Your task to perform on an android device: open app "Microsoft Authenticator" (install if not already installed) Image 0: 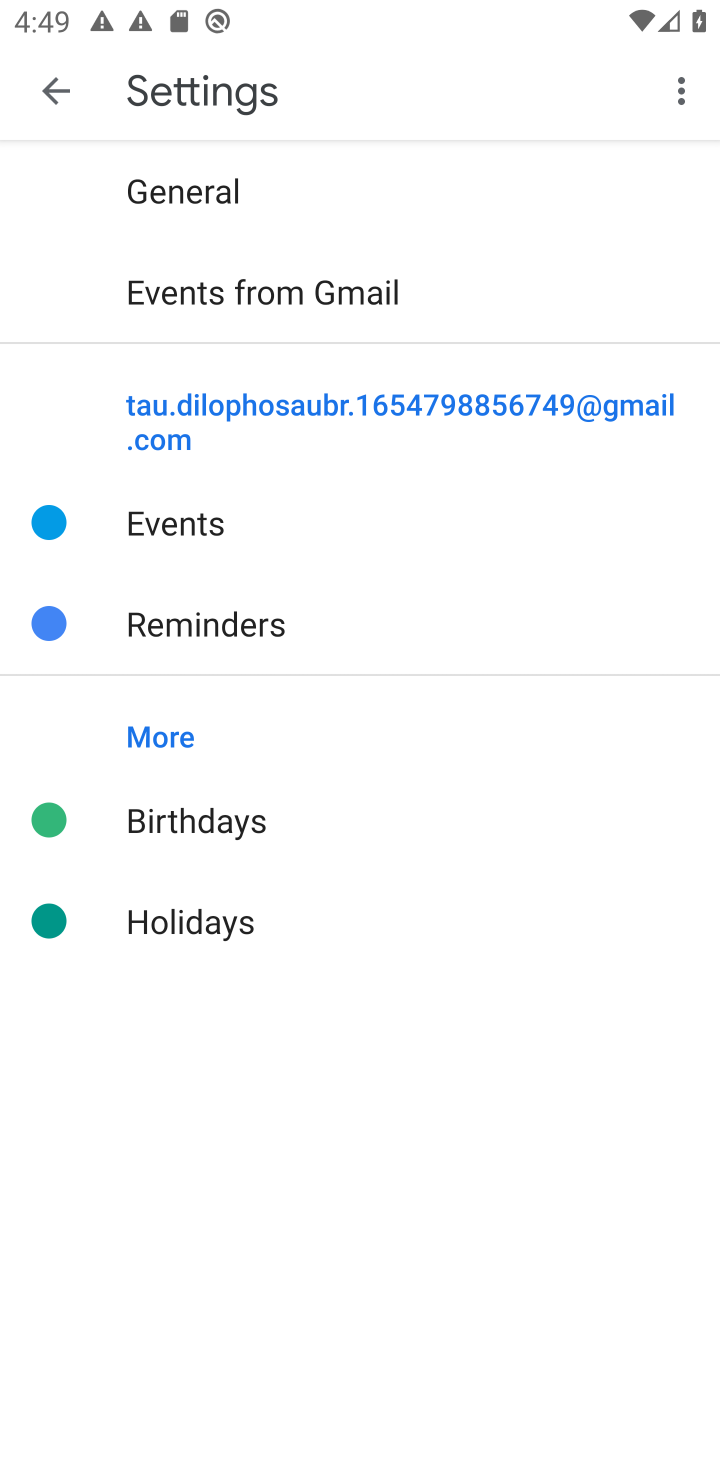
Step 0: press home button
Your task to perform on an android device: open app "Microsoft Authenticator" (install if not already installed) Image 1: 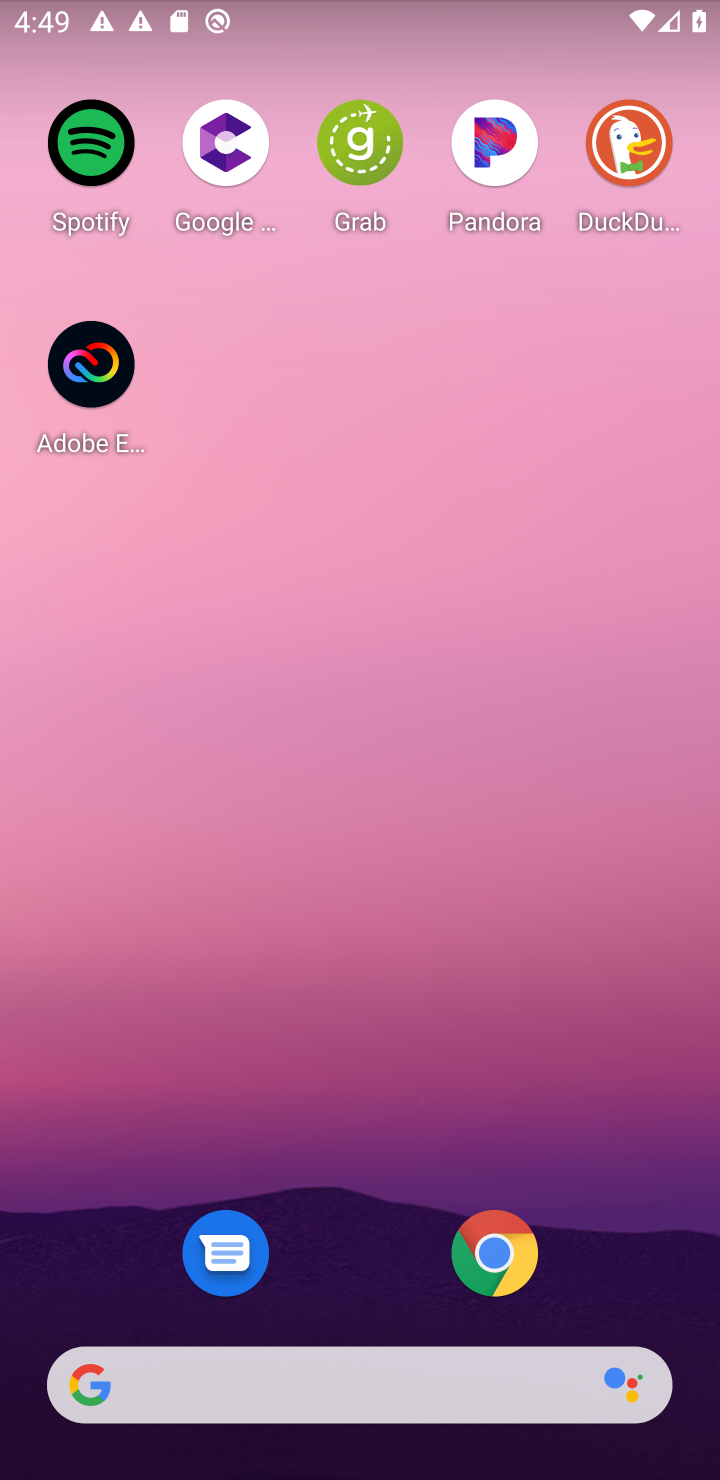
Step 1: drag from (412, 816) to (528, 95)
Your task to perform on an android device: open app "Microsoft Authenticator" (install if not already installed) Image 2: 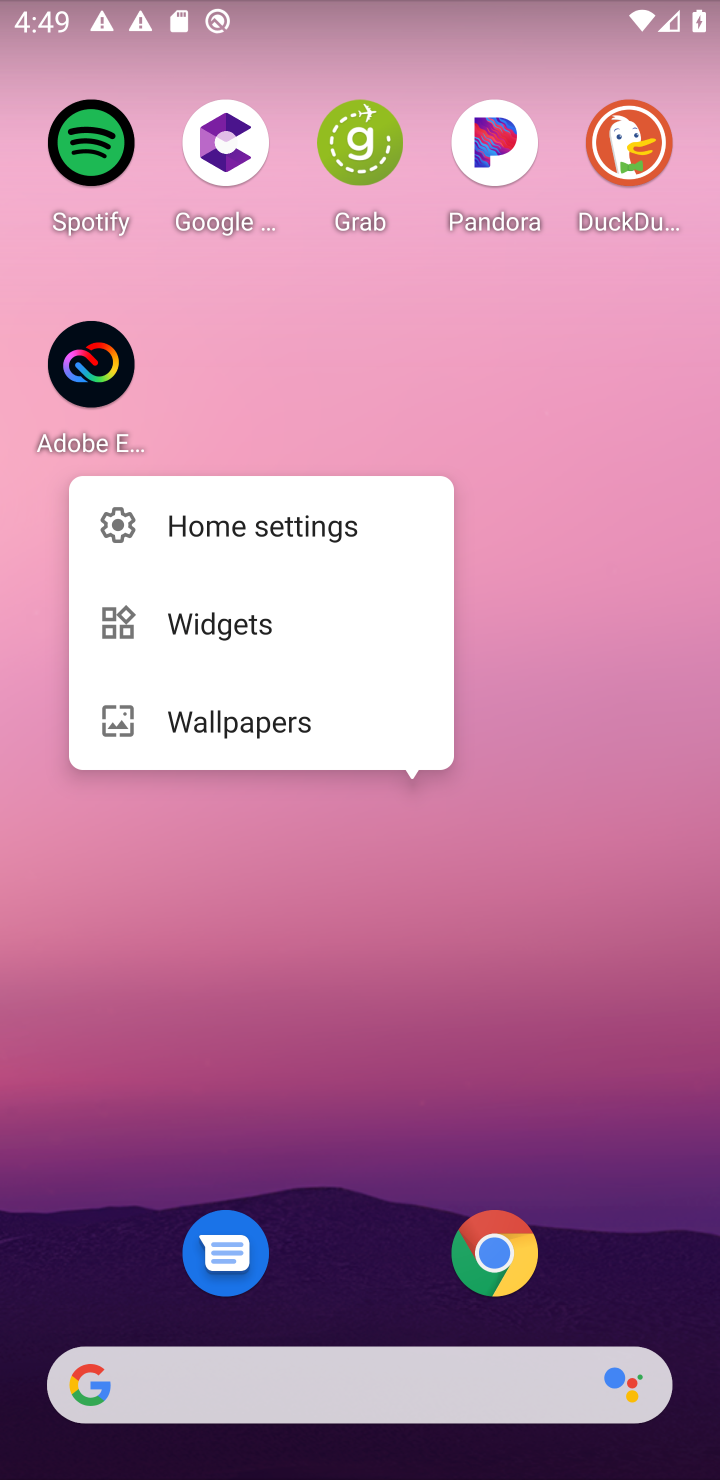
Step 2: click (485, 1083)
Your task to perform on an android device: open app "Microsoft Authenticator" (install if not already installed) Image 3: 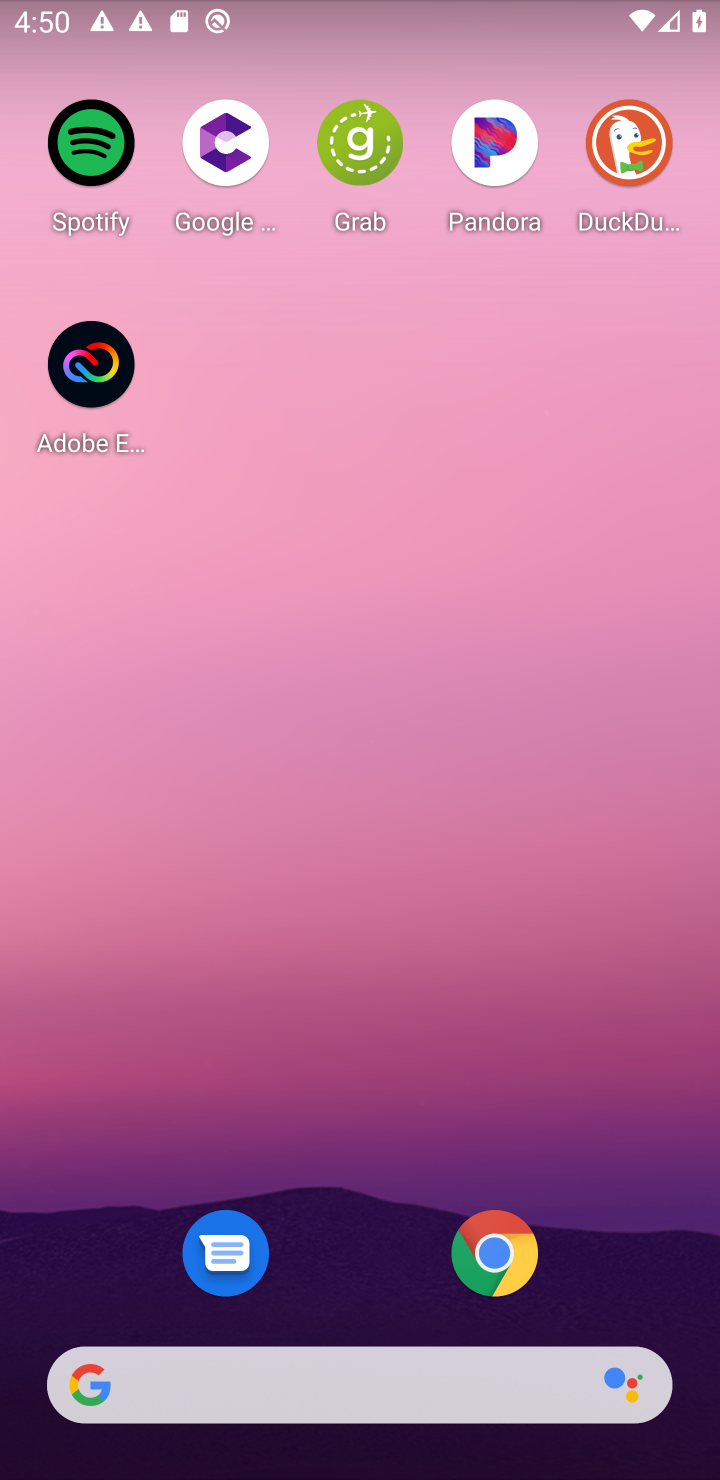
Step 3: drag from (315, 1067) to (583, 150)
Your task to perform on an android device: open app "Microsoft Authenticator" (install if not already installed) Image 4: 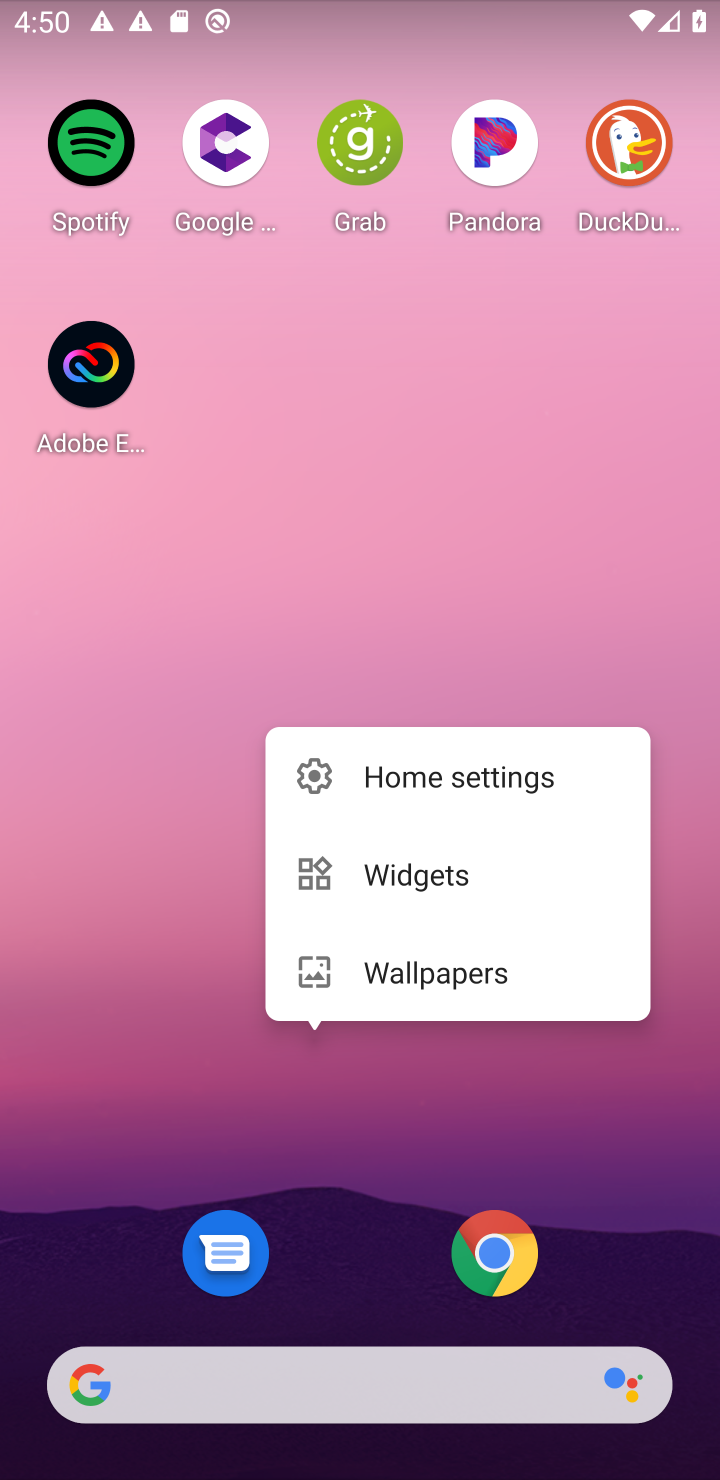
Step 4: click (136, 1091)
Your task to perform on an android device: open app "Microsoft Authenticator" (install if not already installed) Image 5: 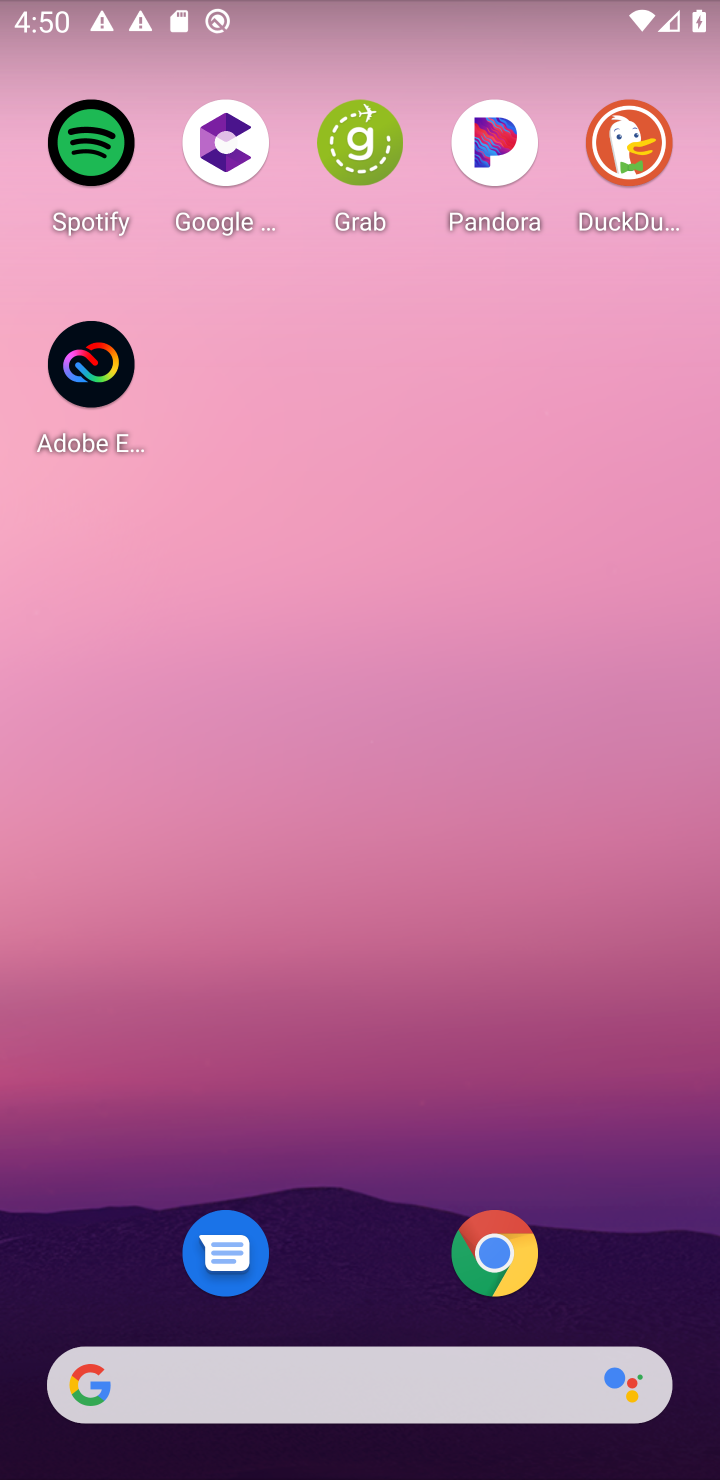
Step 5: drag from (289, 1207) to (496, 147)
Your task to perform on an android device: open app "Microsoft Authenticator" (install if not already installed) Image 6: 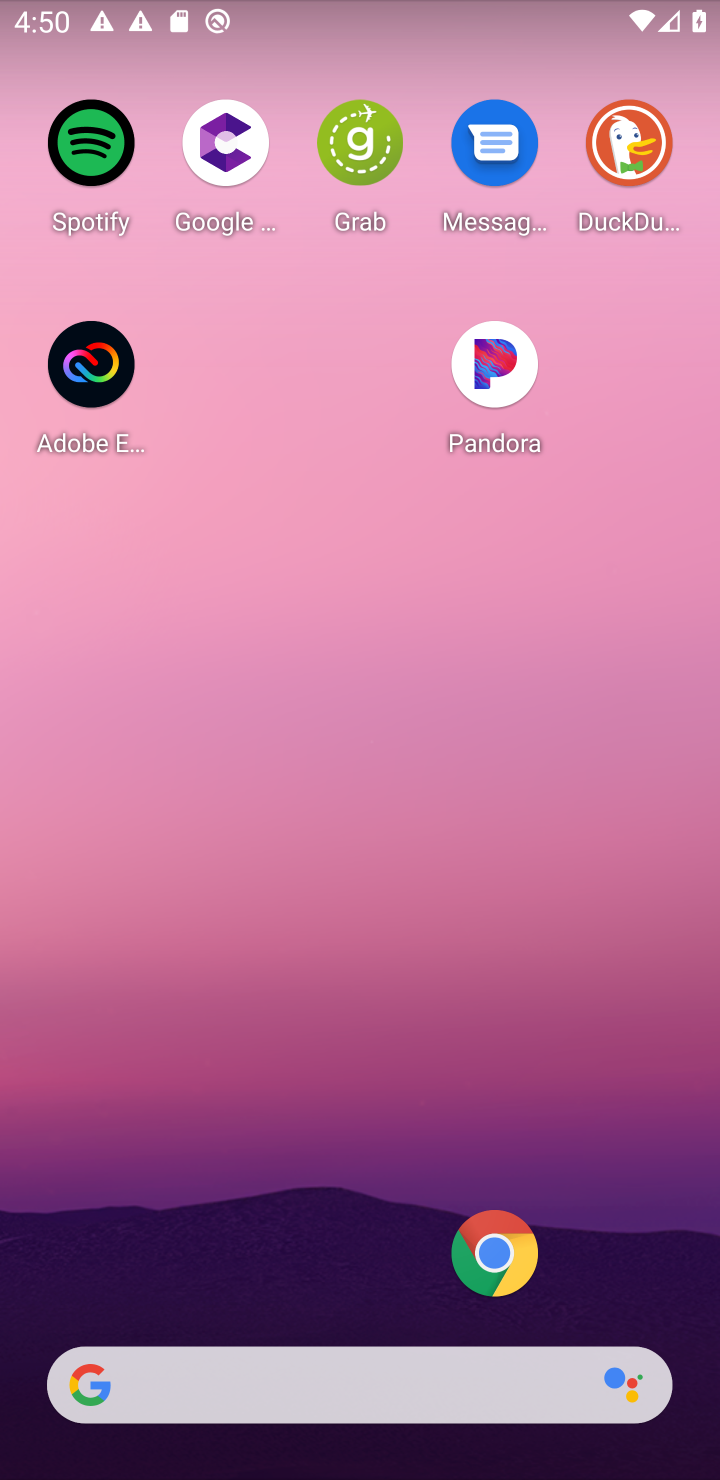
Step 6: drag from (293, 891) to (295, 308)
Your task to perform on an android device: open app "Microsoft Authenticator" (install if not already installed) Image 7: 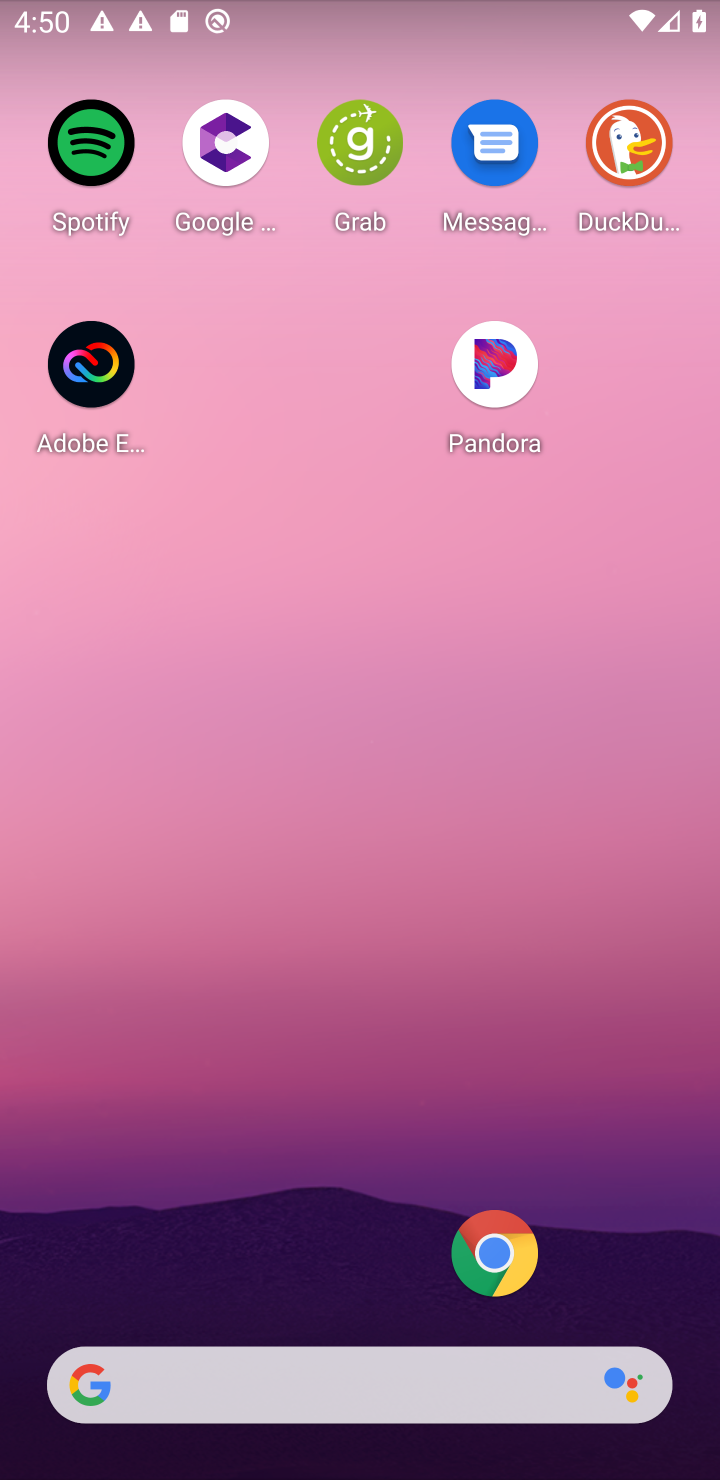
Step 7: drag from (329, 1121) to (362, 208)
Your task to perform on an android device: open app "Microsoft Authenticator" (install if not already installed) Image 8: 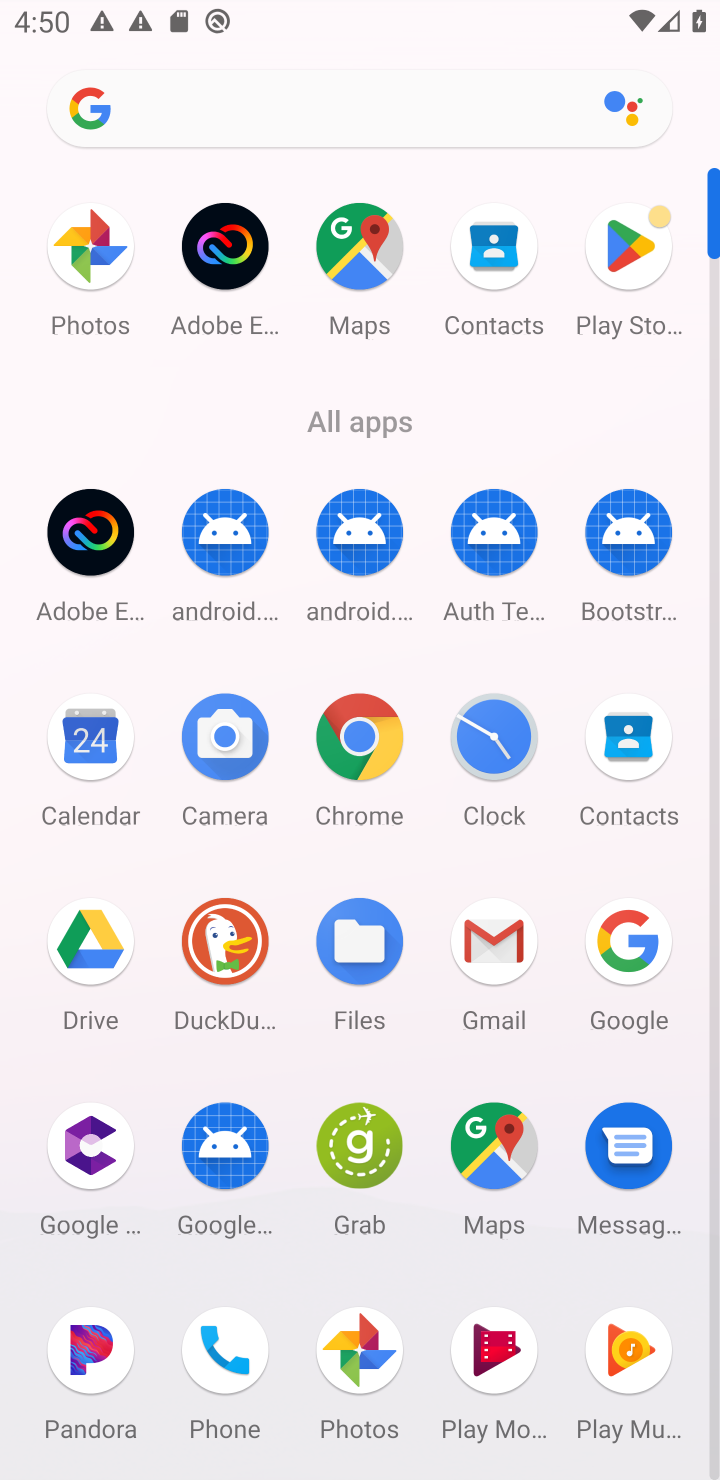
Step 8: click (618, 216)
Your task to perform on an android device: open app "Microsoft Authenticator" (install if not already installed) Image 9: 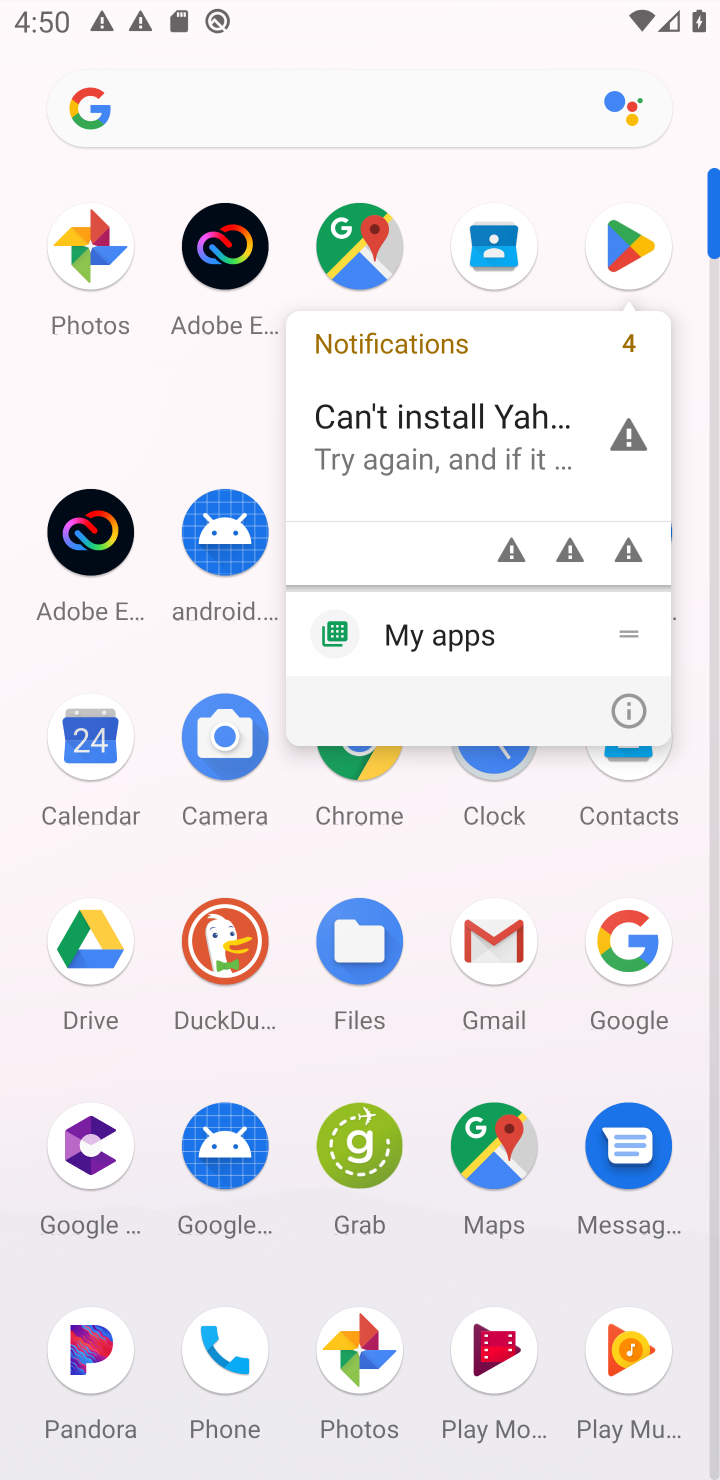
Step 9: click (621, 258)
Your task to perform on an android device: open app "Microsoft Authenticator" (install if not already installed) Image 10: 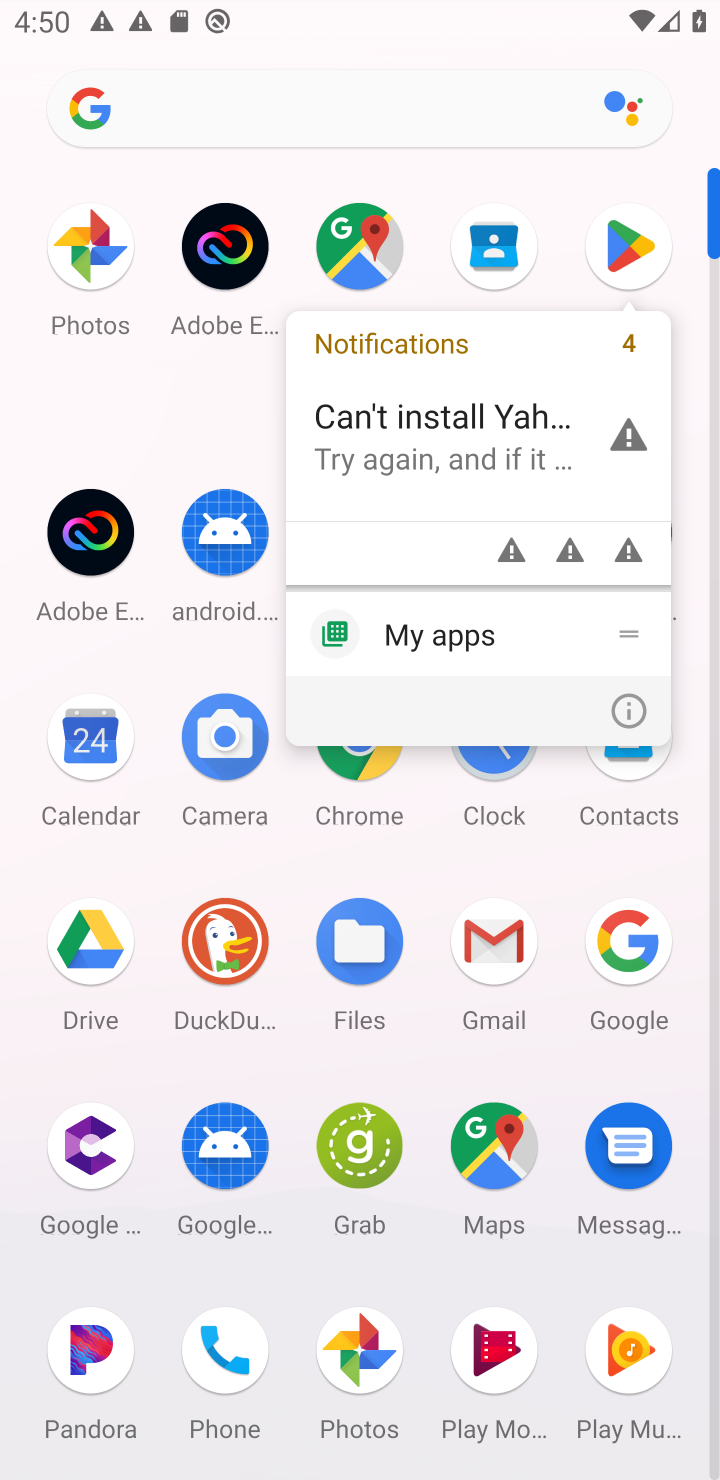
Step 10: click (627, 248)
Your task to perform on an android device: open app "Microsoft Authenticator" (install if not already installed) Image 11: 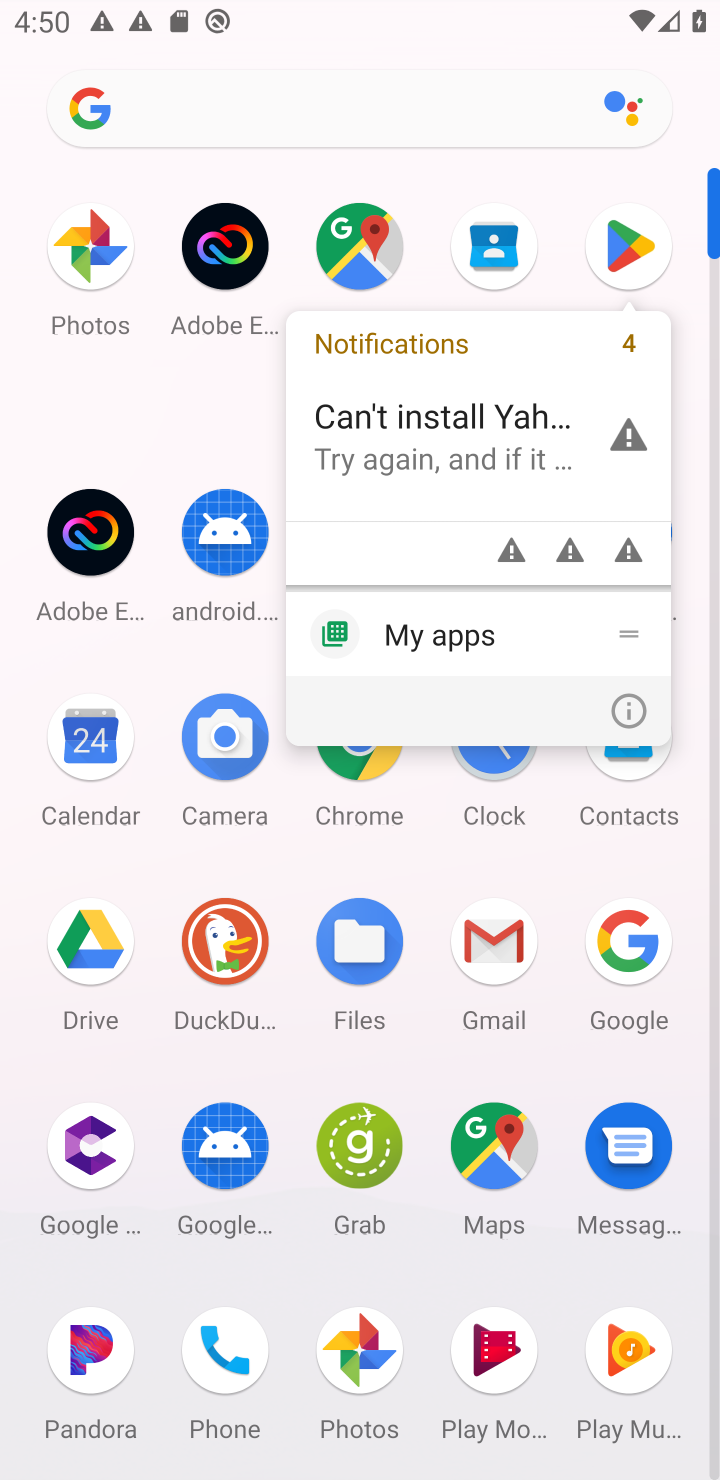
Step 11: click (629, 248)
Your task to perform on an android device: open app "Microsoft Authenticator" (install if not already installed) Image 12: 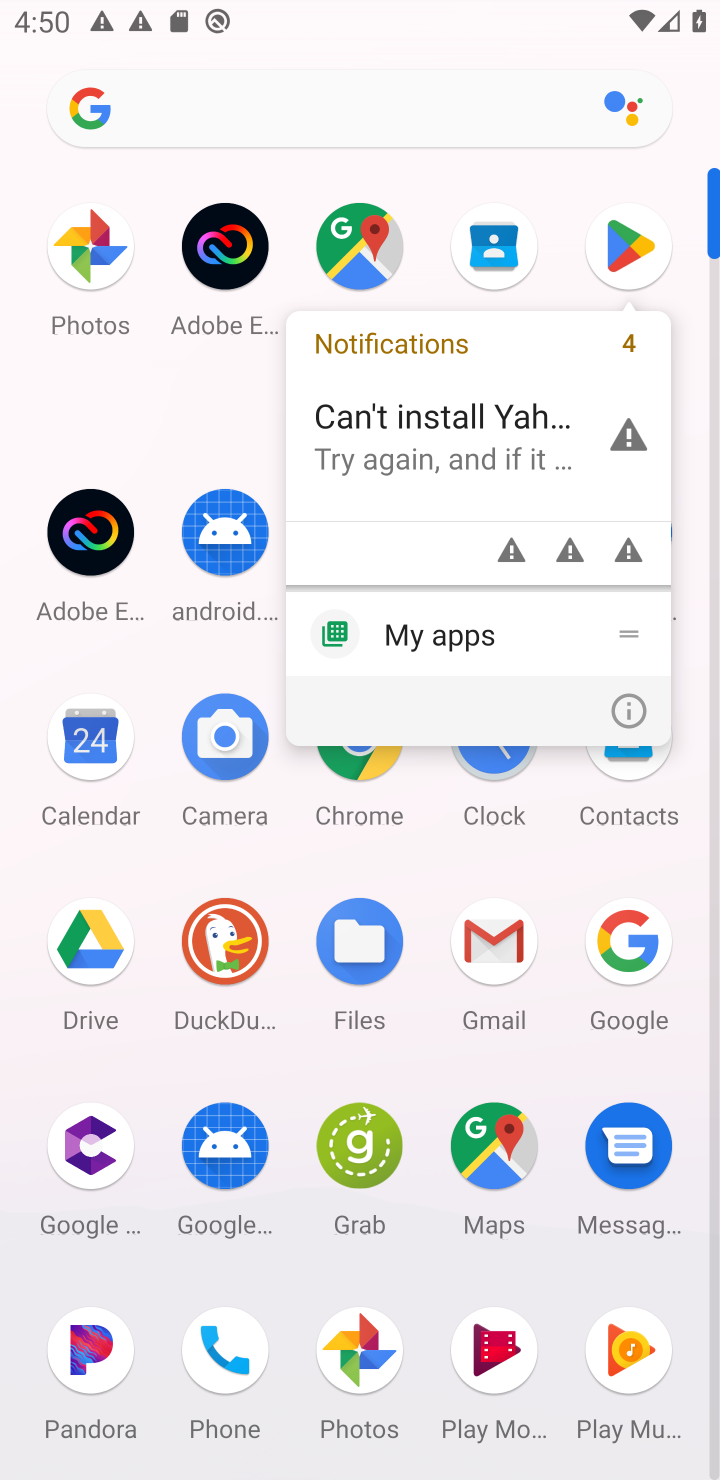
Step 12: click (647, 234)
Your task to perform on an android device: open app "Microsoft Authenticator" (install if not already installed) Image 13: 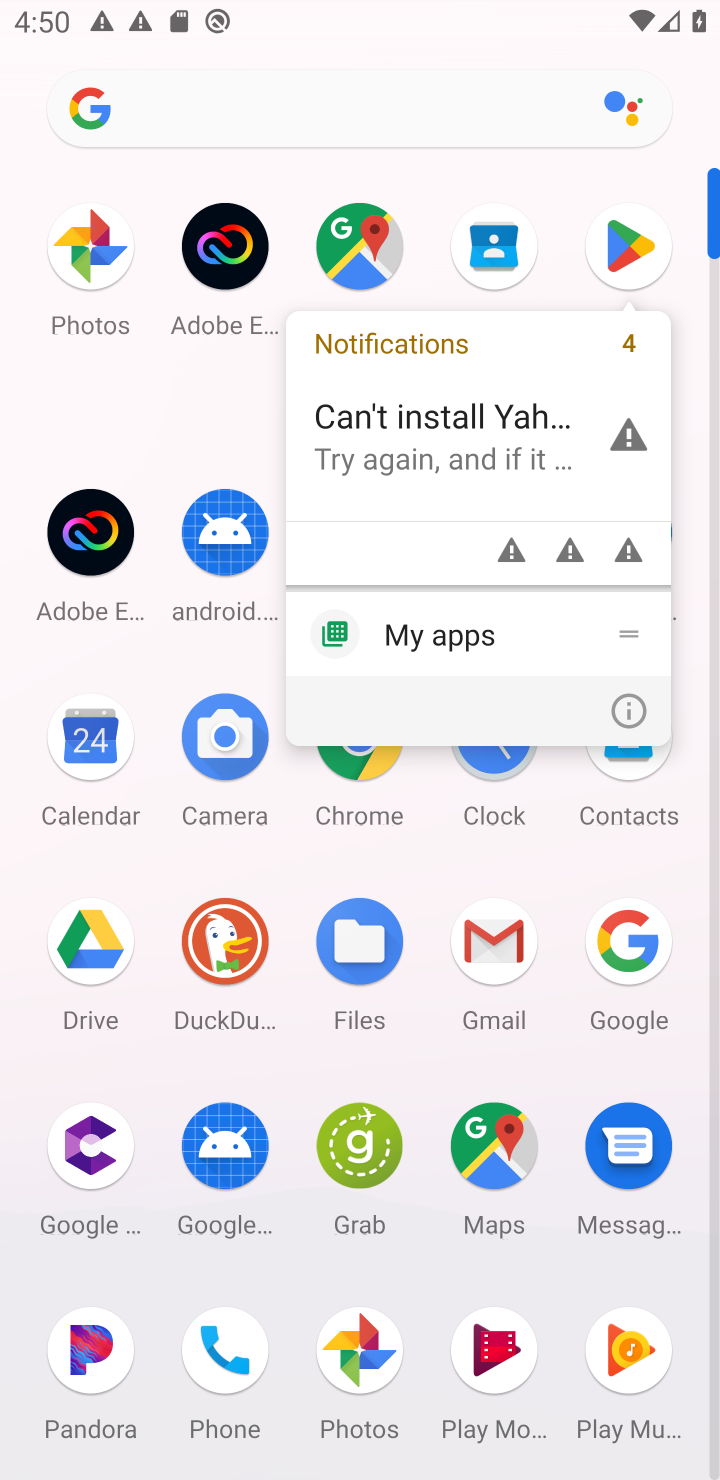
Step 13: click (634, 242)
Your task to perform on an android device: open app "Microsoft Authenticator" (install if not already installed) Image 14: 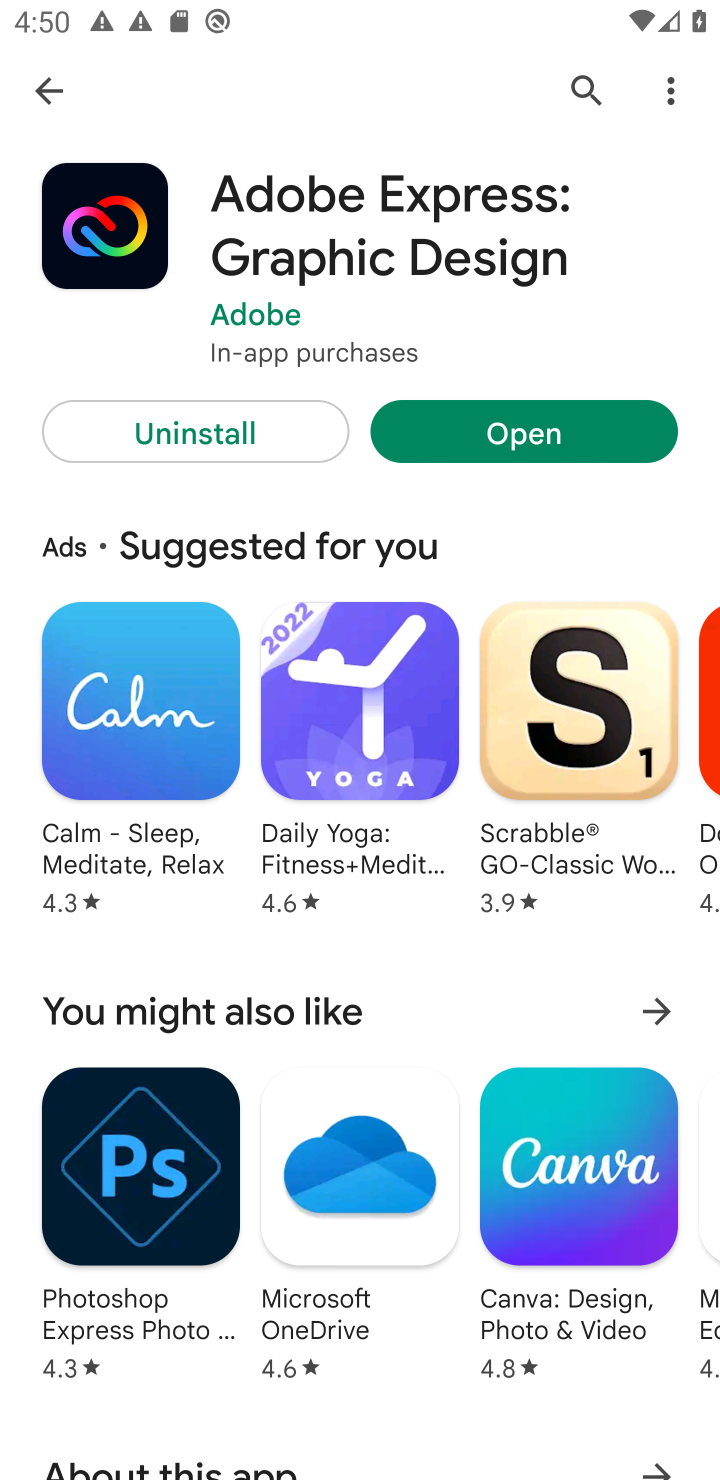
Step 14: click (588, 86)
Your task to perform on an android device: open app "Microsoft Authenticator" (install if not already installed) Image 15: 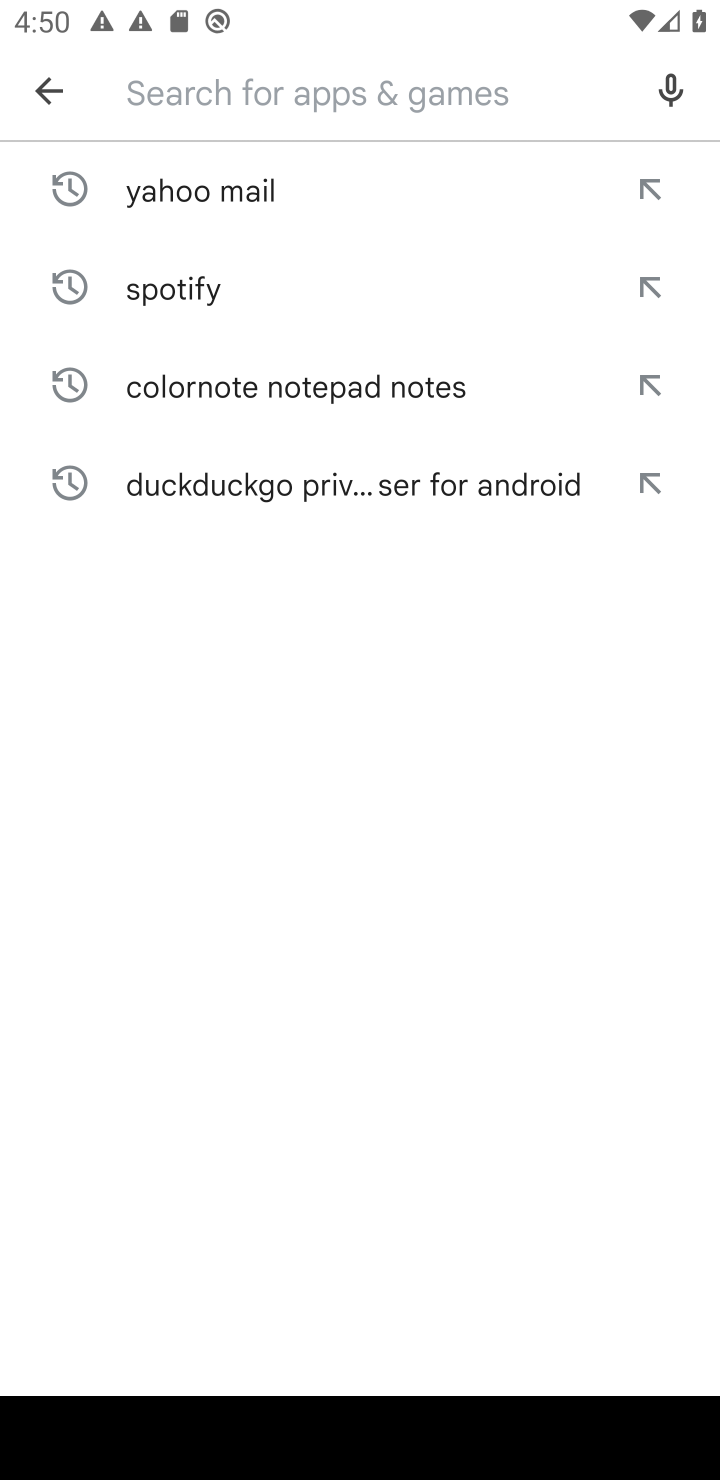
Step 15: click (145, 77)
Your task to perform on an android device: open app "Microsoft Authenticator" (install if not already installed) Image 16: 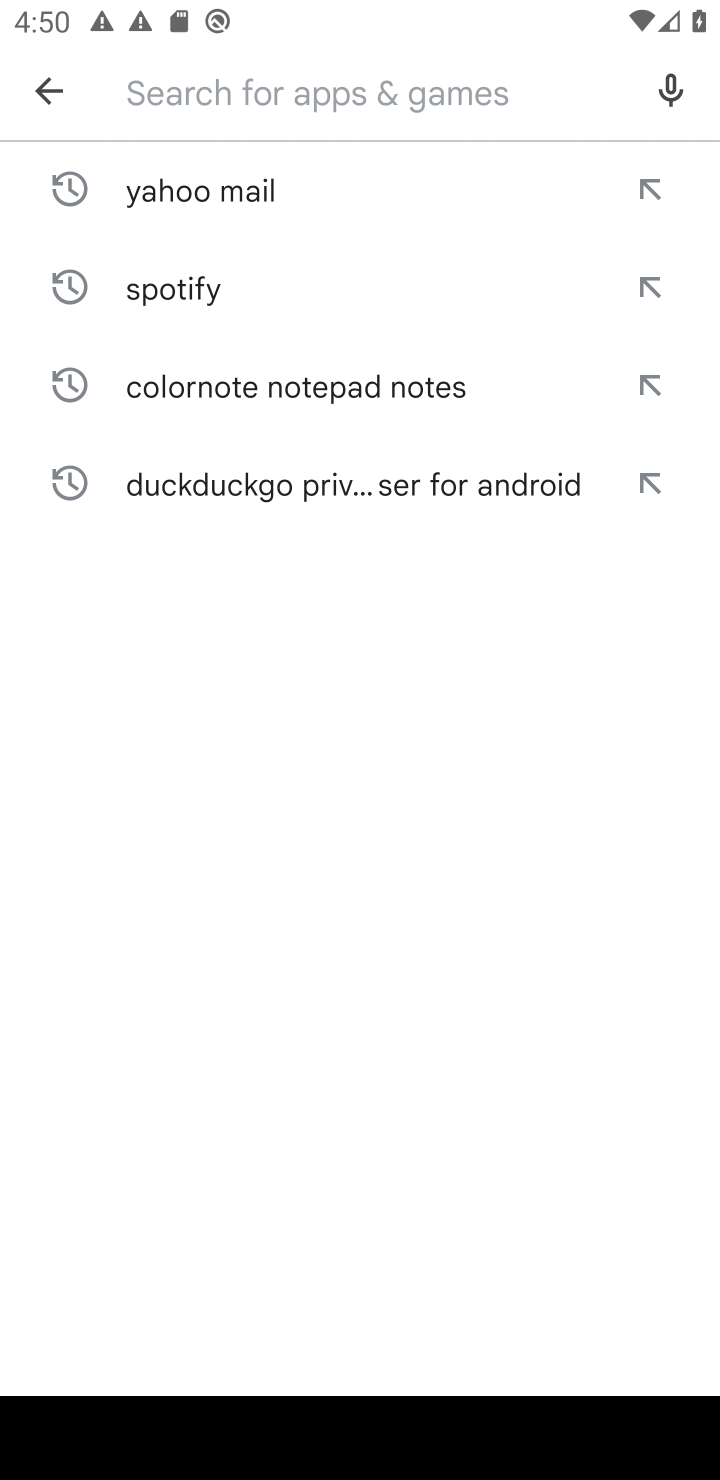
Step 16: type "Microsoft Authenticator"
Your task to perform on an android device: open app "Microsoft Authenticator" (install if not already installed) Image 17: 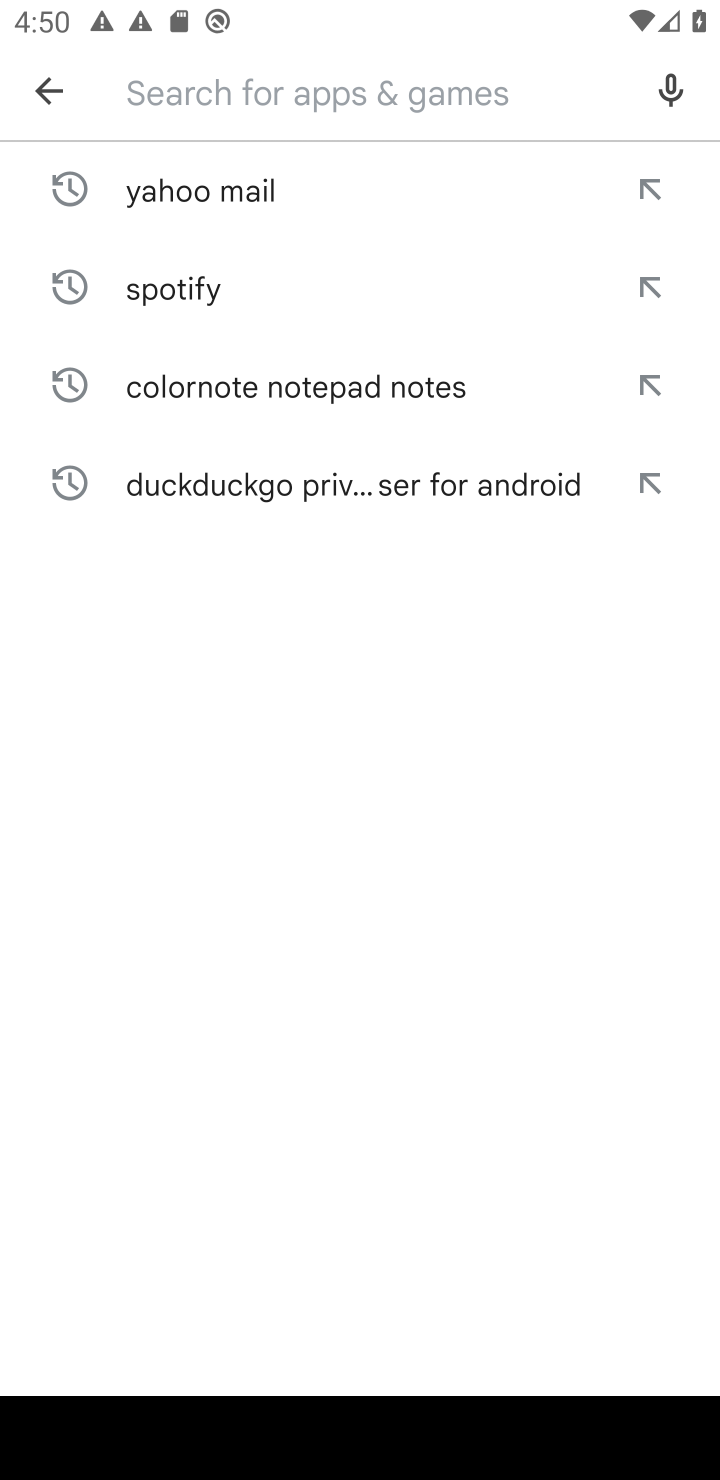
Step 17: click (369, 994)
Your task to perform on an android device: open app "Microsoft Authenticator" (install if not already installed) Image 18: 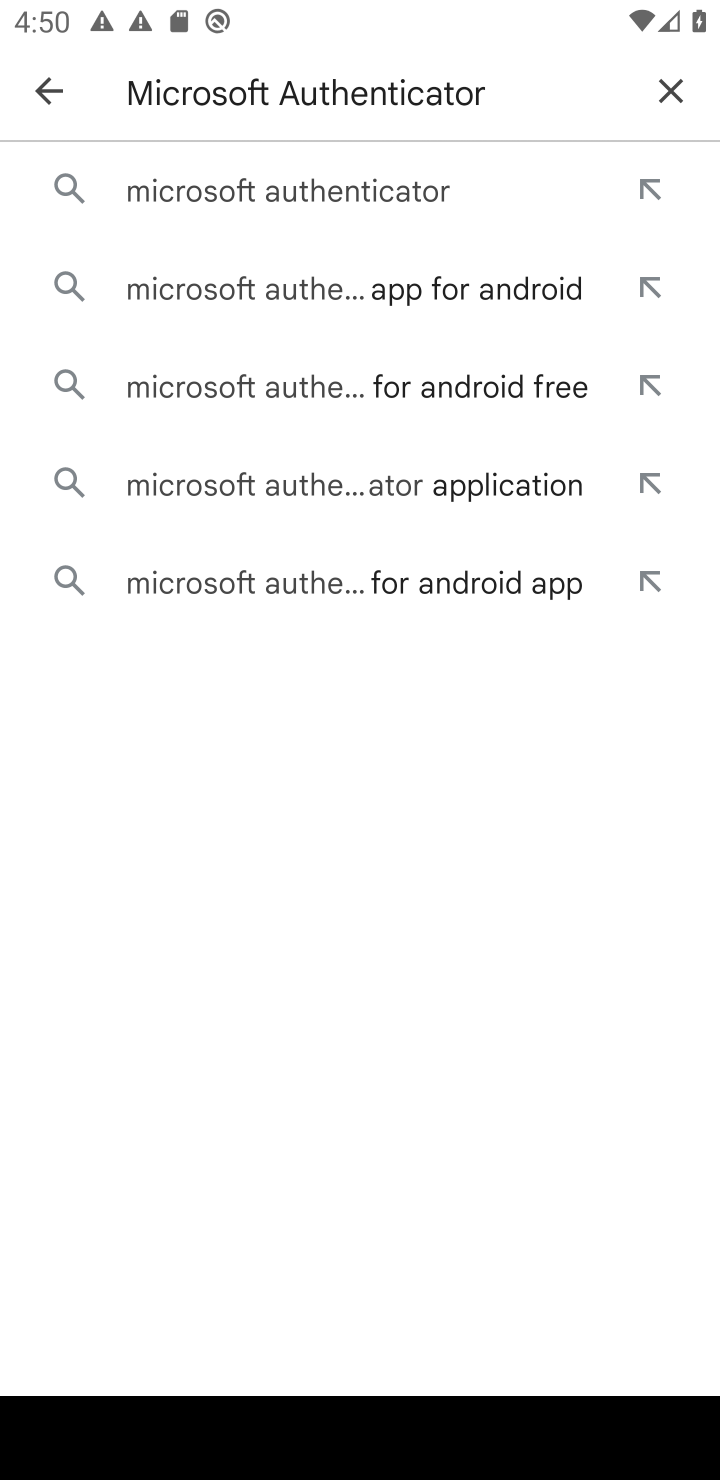
Step 18: click (333, 185)
Your task to perform on an android device: open app "Microsoft Authenticator" (install if not already installed) Image 19: 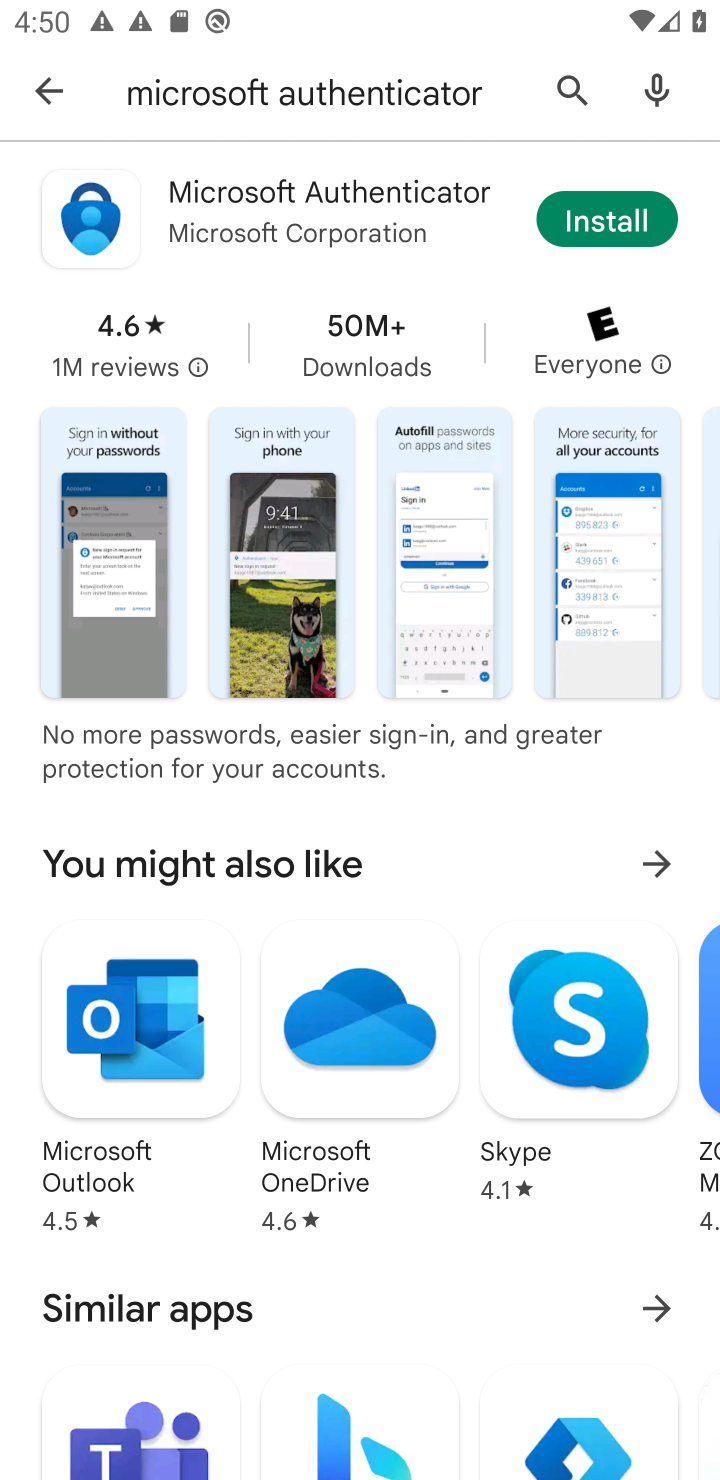
Step 19: click (605, 234)
Your task to perform on an android device: open app "Microsoft Authenticator" (install if not already installed) Image 20: 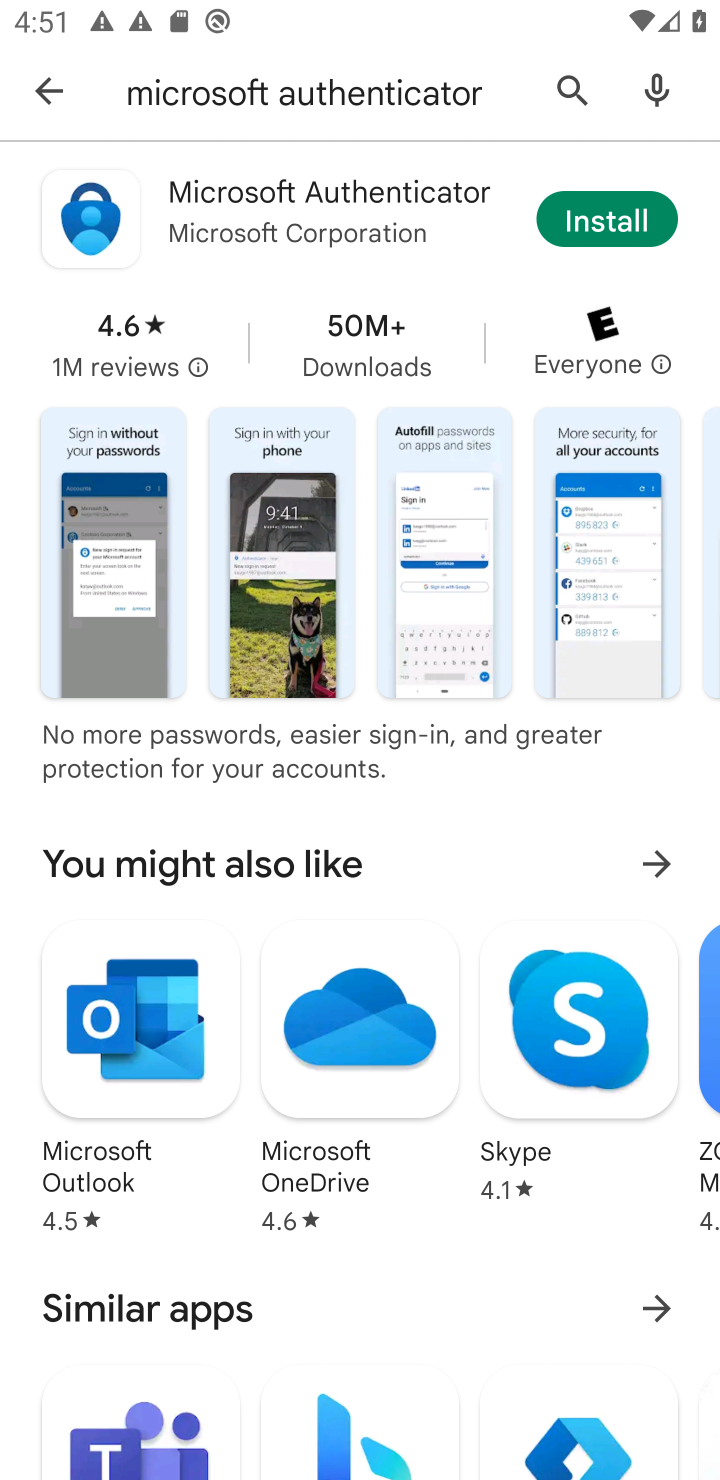
Step 20: click (606, 211)
Your task to perform on an android device: open app "Microsoft Authenticator" (install if not already installed) Image 21: 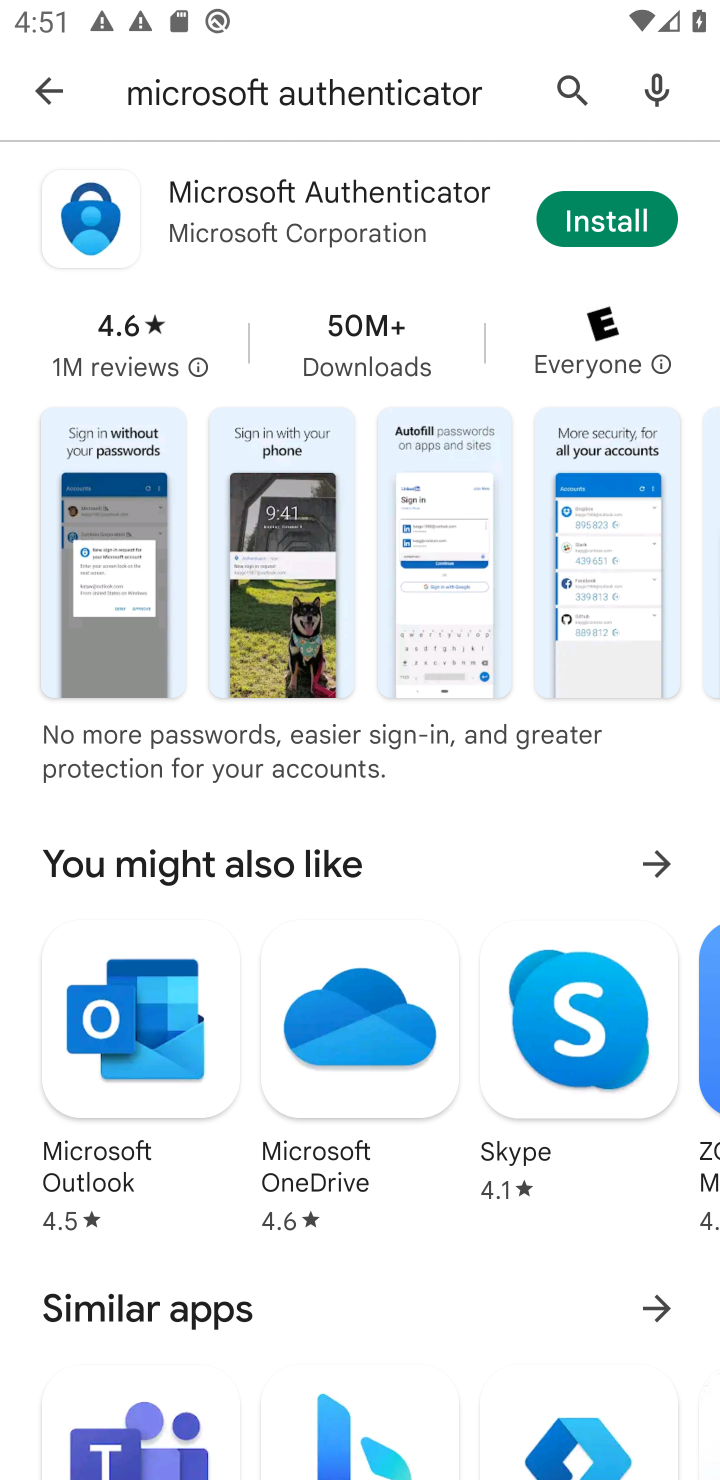
Step 21: click (618, 203)
Your task to perform on an android device: open app "Microsoft Authenticator" (install if not already installed) Image 22: 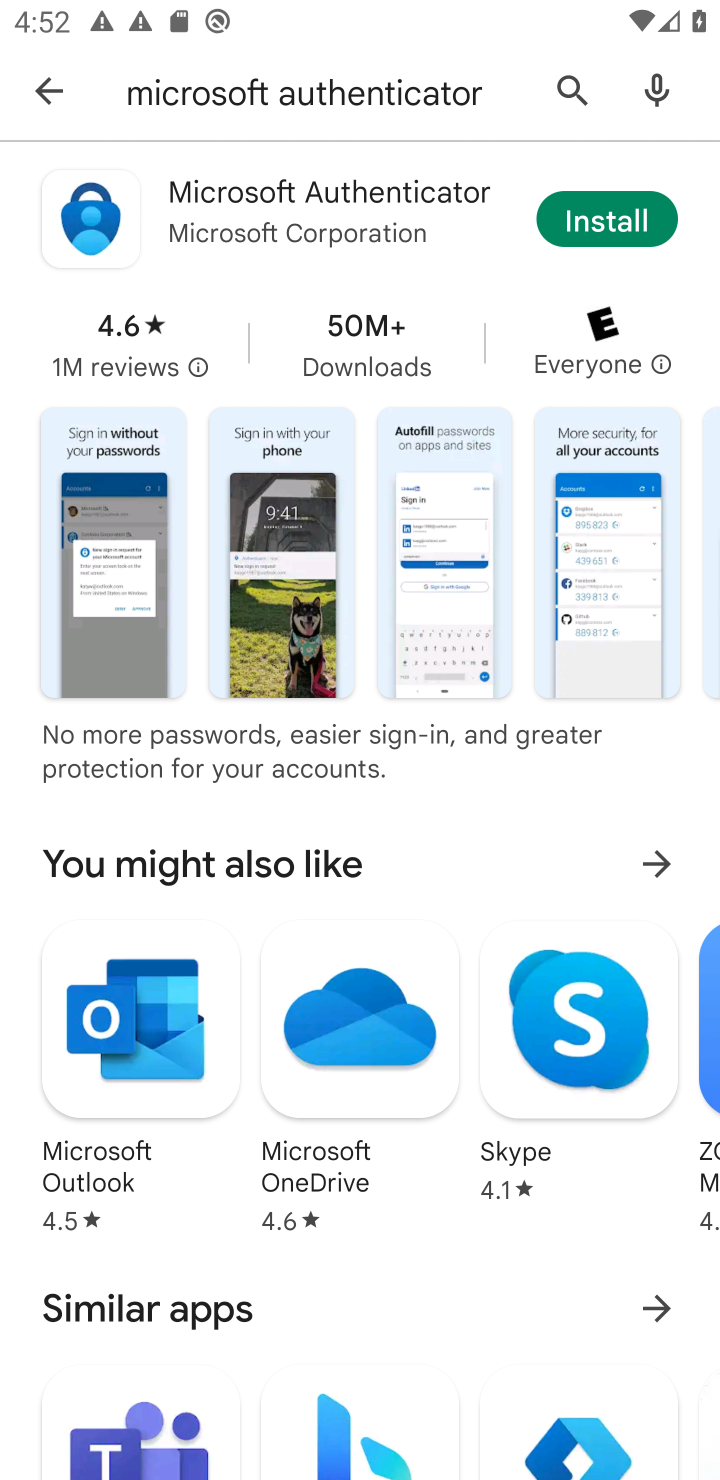
Step 22: task complete